Your task to perform on an android device: turn off translation in the chrome app Image 0: 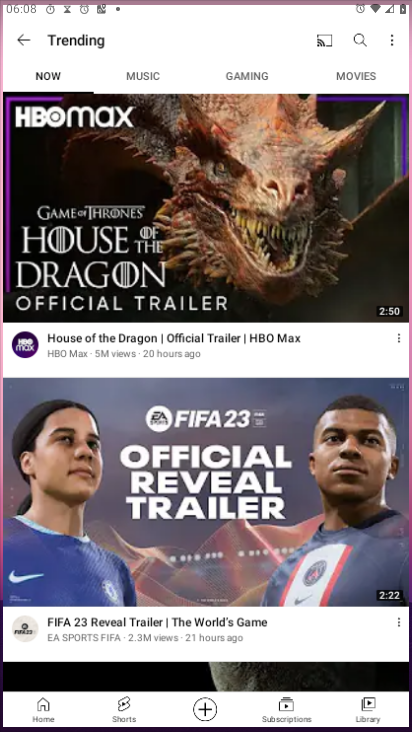
Step 0: press home button
Your task to perform on an android device: turn off translation in the chrome app Image 1: 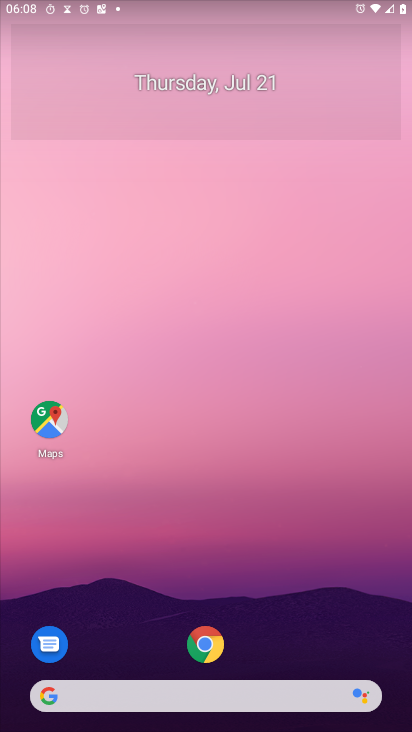
Step 1: click (205, 637)
Your task to perform on an android device: turn off translation in the chrome app Image 2: 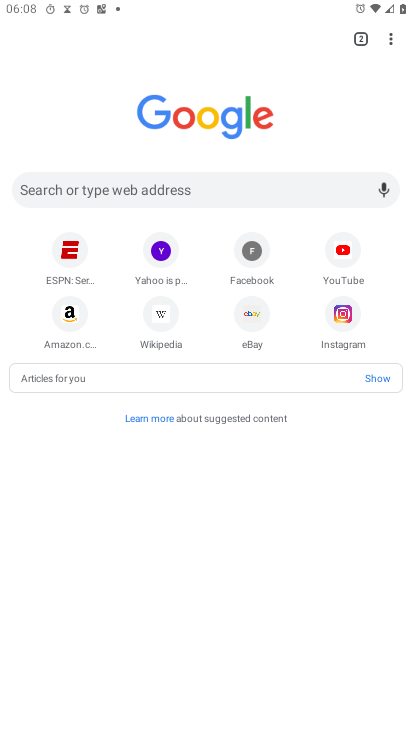
Step 2: drag from (392, 37) to (263, 364)
Your task to perform on an android device: turn off translation in the chrome app Image 3: 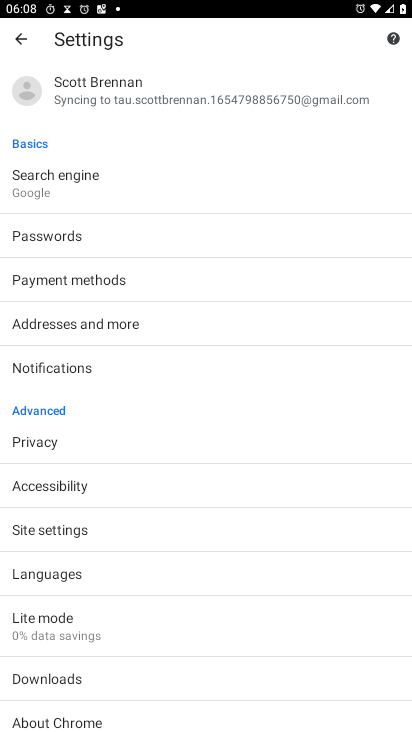
Step 3: click (41, 578)
Your task to perform on an android device: turn off translation in the chrome app Image 4: 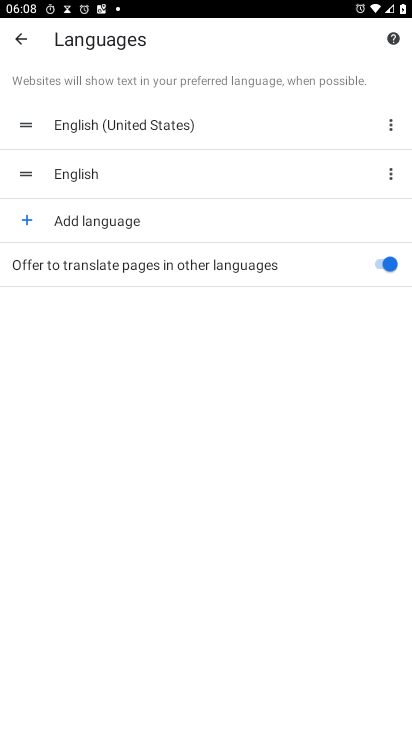
Step 4: click (387, 267)
Your task to perform on an android device: turn off translation in the chrome app Image 5: 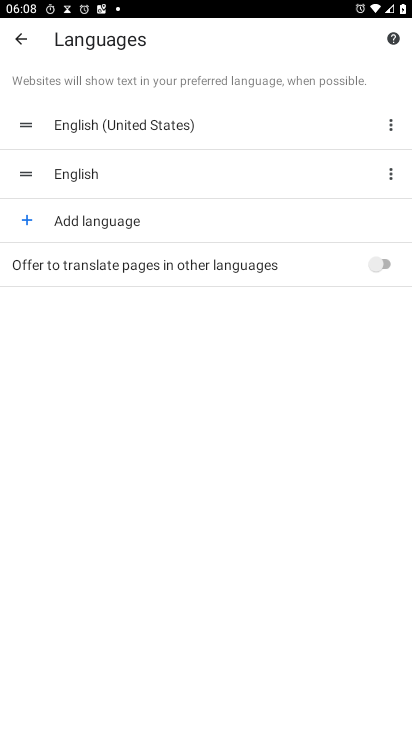
Step 5: task complete